Your task to perform on an android device: Open network settings Image 0: 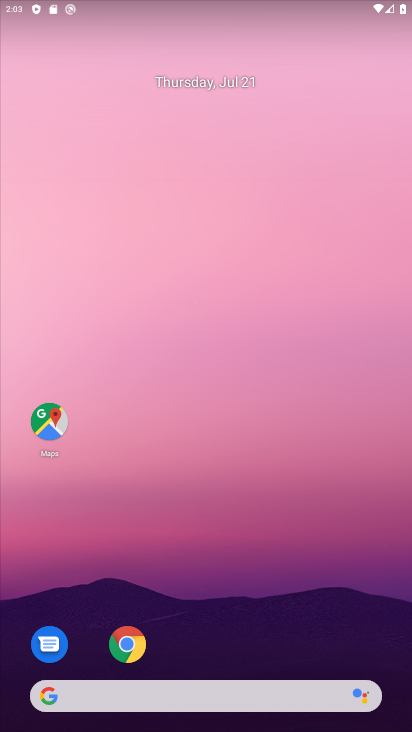
Step 0: drag from (285, 608) to (156, 41)
Your task to perform on an android device: Open network settings Image 1: 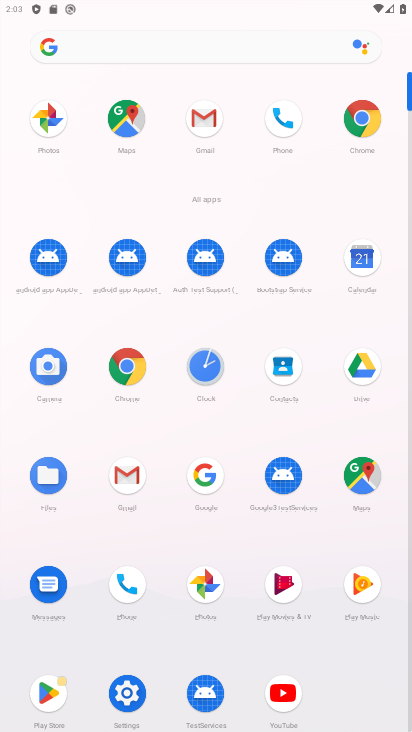
Step 1: click (128, 694)
Your task to perform on an android device: Open network settings Image 2: 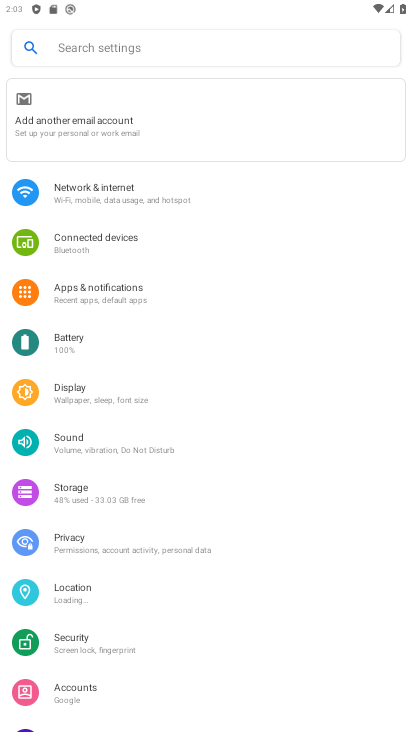
Step 2: click (168, 196)
Your task to perform on an android device: Open network settings Image 3: 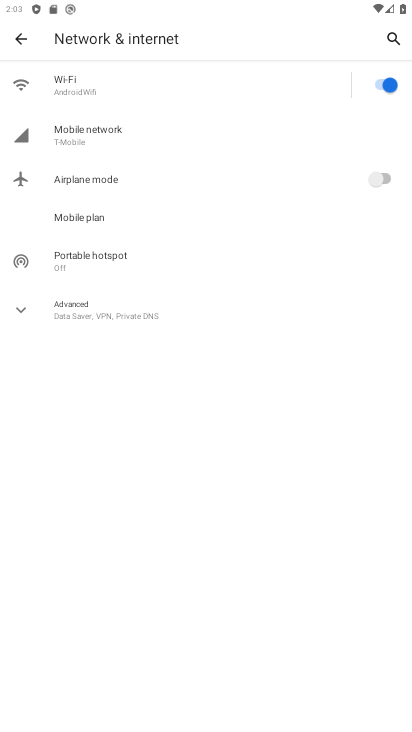
Step 3: task complete